Your task to perform on an android device: Show me popular videos on Youtube Image 0: 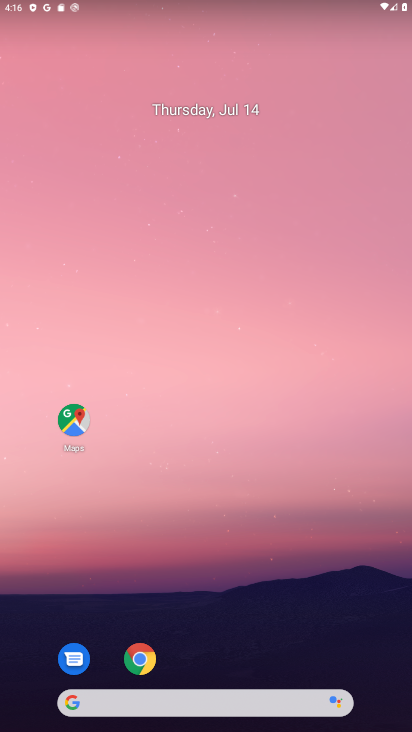
Step 0: drag from (332, 627) to (209, 9)
Your task to perform on an android device: Show me popular videos on Youtube Image 1: 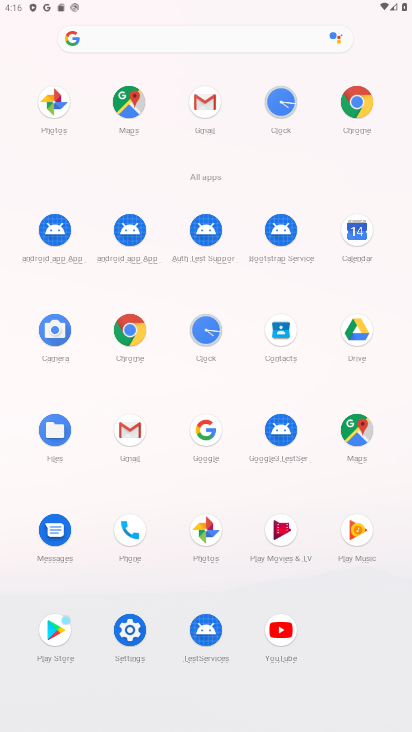
Step 1: click (285, 636)
Your task to perform on an android device: Show me popular videos on Youtube Image 2: 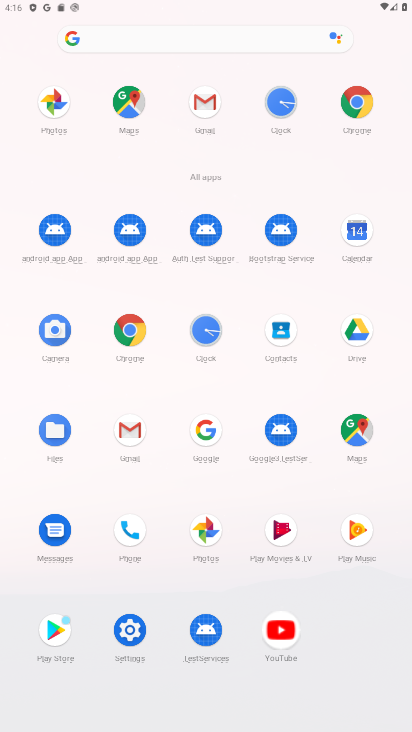
Step 2: click (284, 635)
Your task to perform on an android device: Show me popular videos on Youtube Image 3: 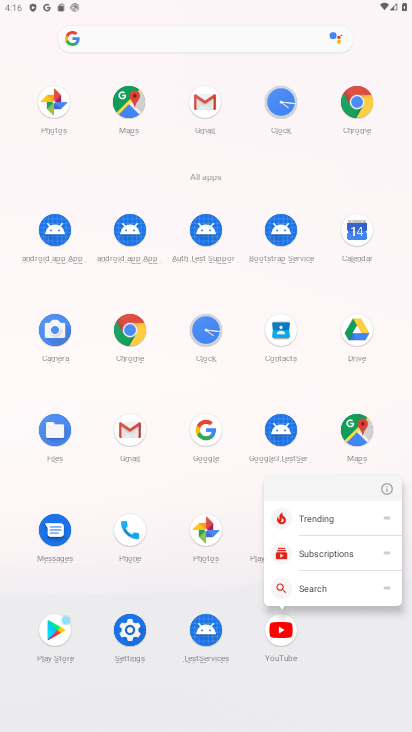
Step 3: click (284, 627)
Your task to perform on an android device: Show me popular videos on Youtube Image 4: 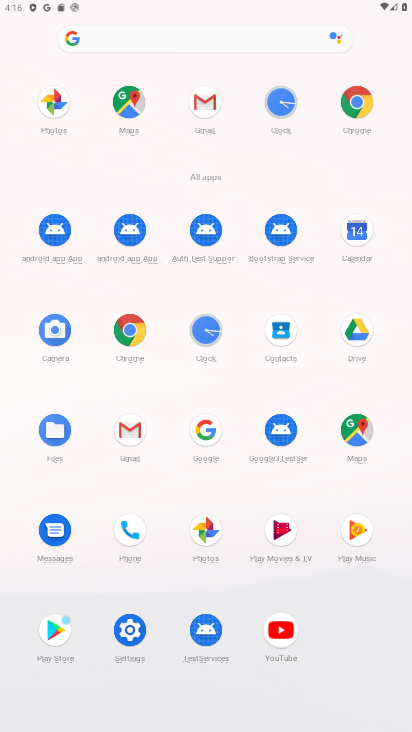
Step 4: click (283, 628)
Your task to perform on an android device: Show me popular videos on Youtube Image 5: 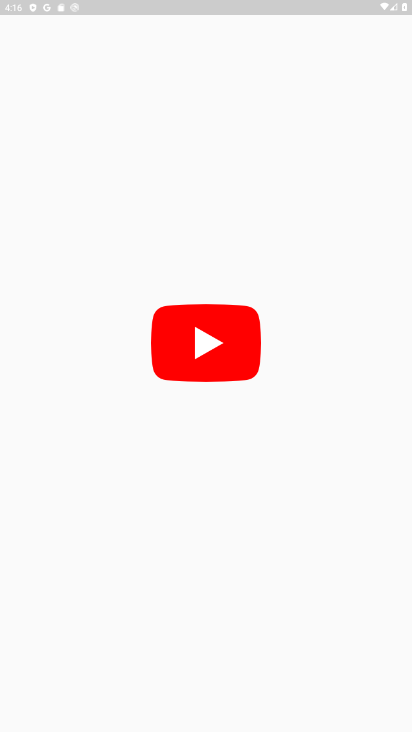
Step 5: click (284, 627)
Your task to perform on an android device: Show me popular videos on Youtube Image 6: 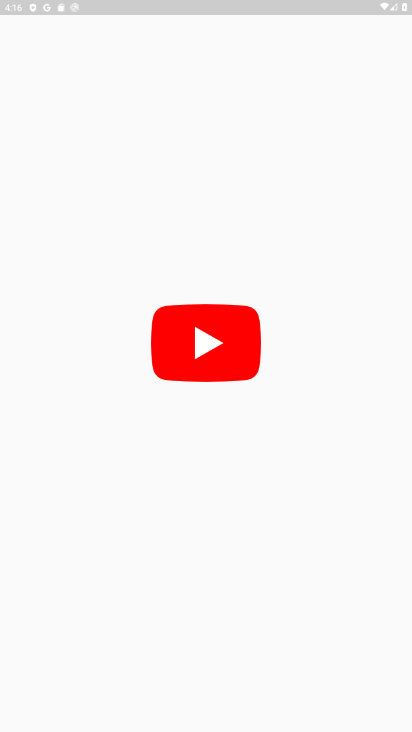
Step 6: click (282, 625)
Your task to perform on an android device: Show me popular videos on Youtube Image 7: 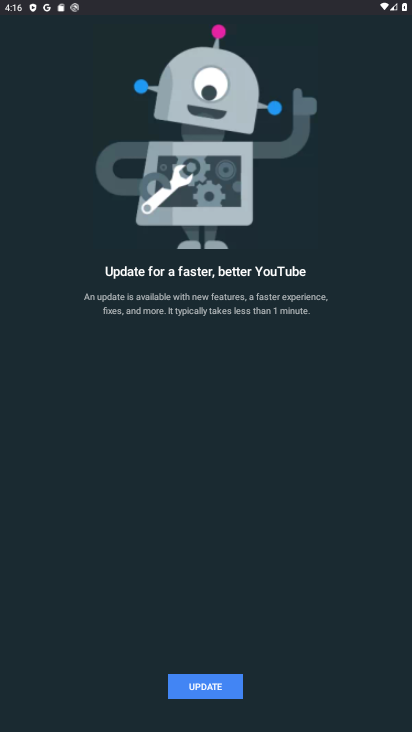
Step 7: click (207, 683)
Your task to perform on an android device: Show me popular videos on Youtube Image 8: 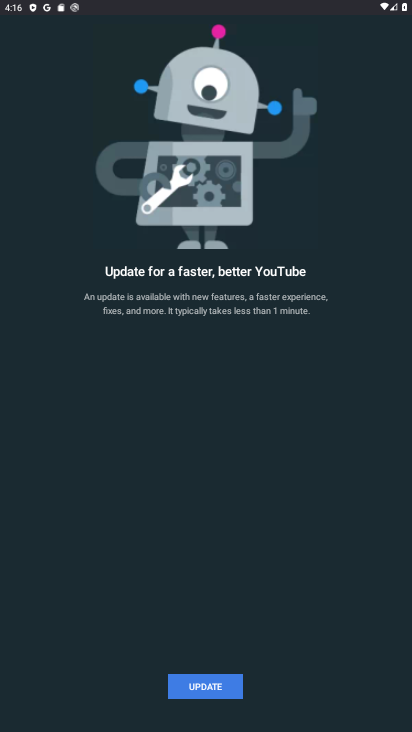
Step 8: click (207, 683)
Your task to perform on an android device: Show me popular videos on Youtube Image 9: 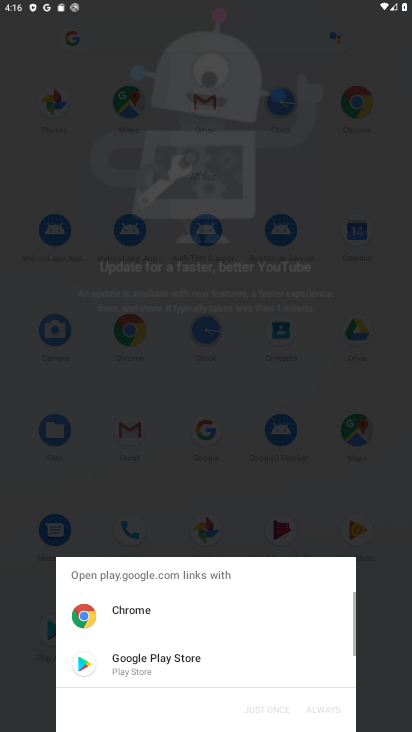
Step 9: click (220, 676)
Your task to perform on an android device: Show me popular videos on Youtube Image 10: 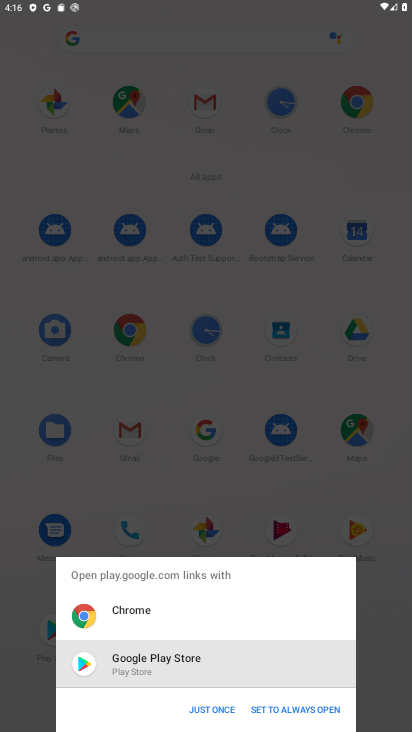
Step 10: click (131, 596)
Your task to perform on an android device: Show me popular videos on Youtube Image 11: 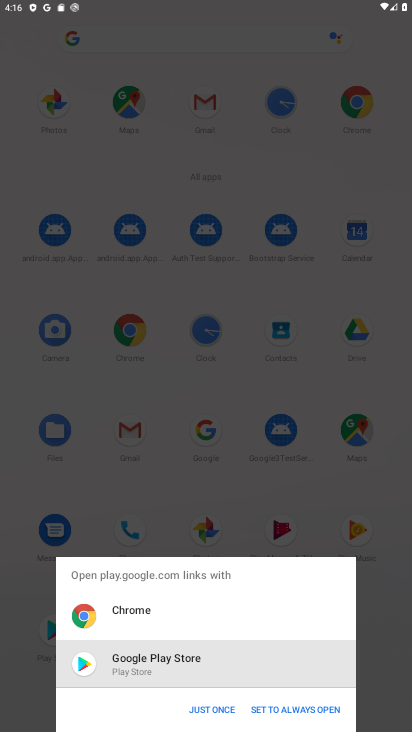
Step 11: click (129, 601)
Your task to perform on an android device: Show me popular videos on Youtube Image 12: 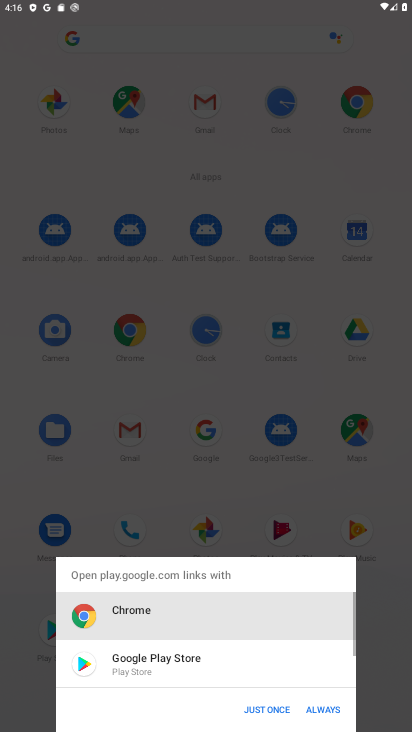
Step 12: click (135, 603)
Your task to perform on an android device: Show me popular videos on Youtube Image 13: 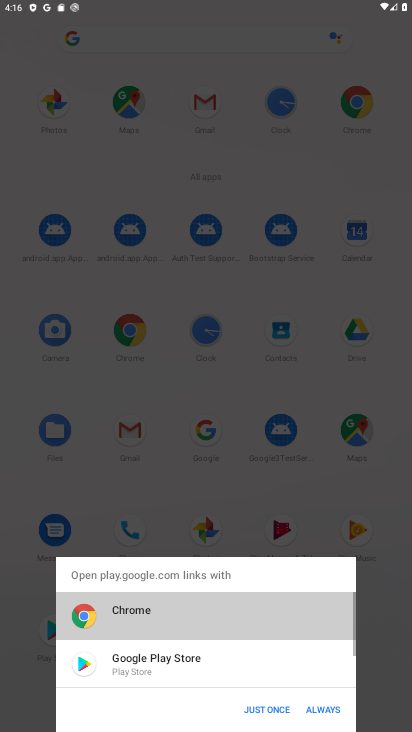
Step 13: click (138, 603)
Your task to perform on an android device: Show me popular videos on Youtube Image 14: 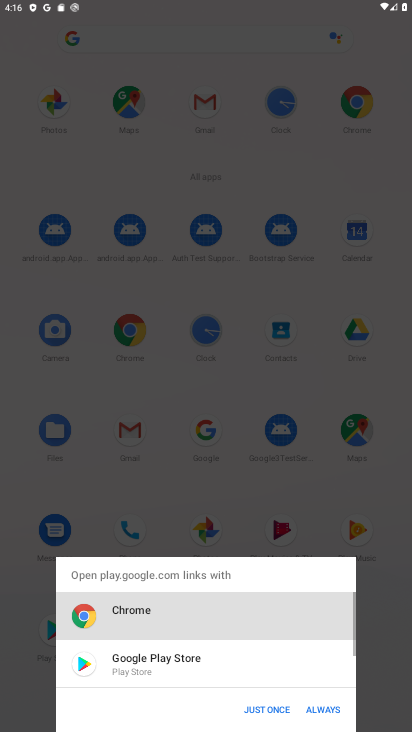
Step 14: click (138, 603)
Your task to perform on an android device: Show me popular videos on Youtube Image 15: 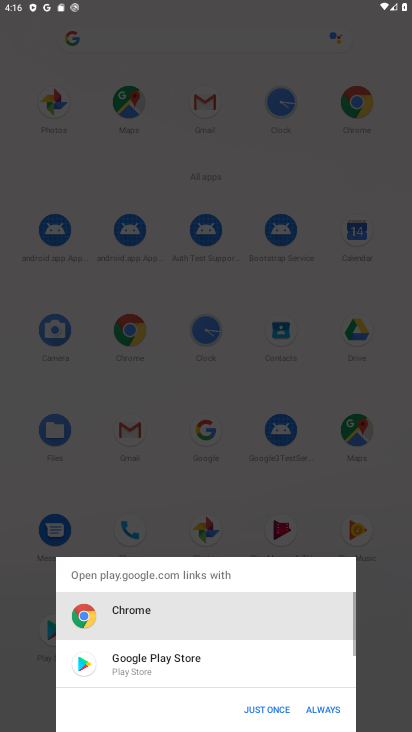
Step 15: click (138, 603)
Your task to perform on an android device: Show me popular videos on Youtube Image 16: 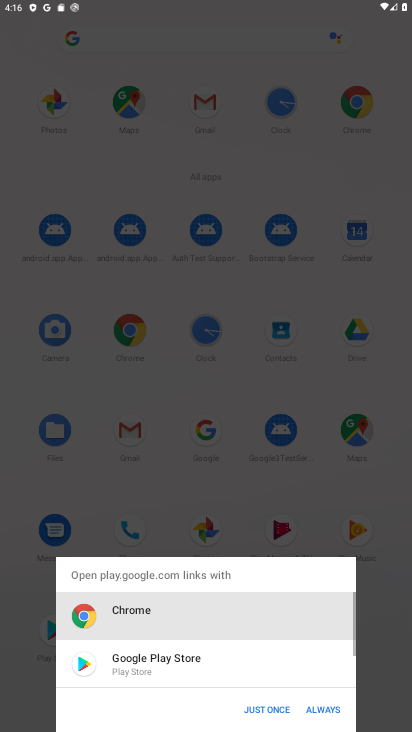
Step 16: click (138, 603)
Your task to perform on an android device: Show me popular videos on Youtube Image 17: 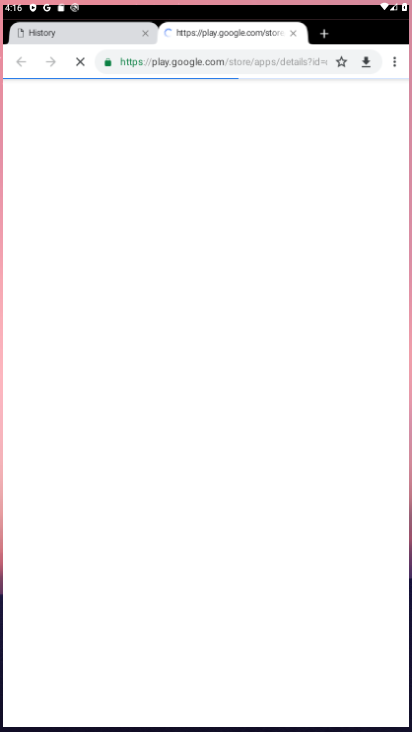
Step 17: click (112, 602)
Your task to perform on an android device: Show me popular videos on Youtube Image 18: 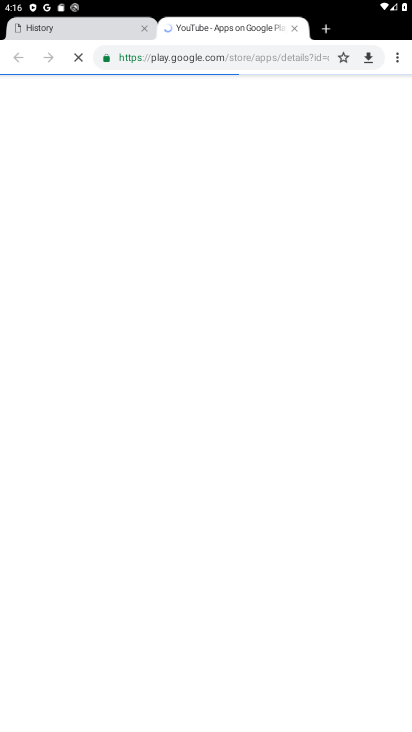
Step 18: click (140, 593)
Your task to perform on an android device: Show me popular videos on Youtube Image 19: 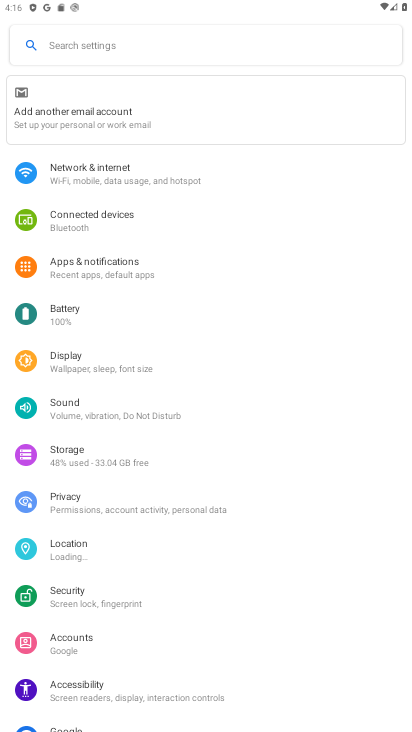
Step 19: task complete